Your task to perform on an android device: Open sound settings Image 0: 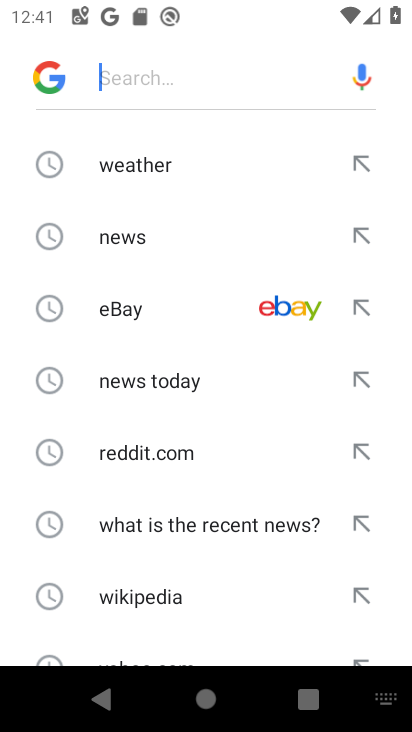
Step 0: press home button
Your task to perform on an android device: Open sound settings Image 1: 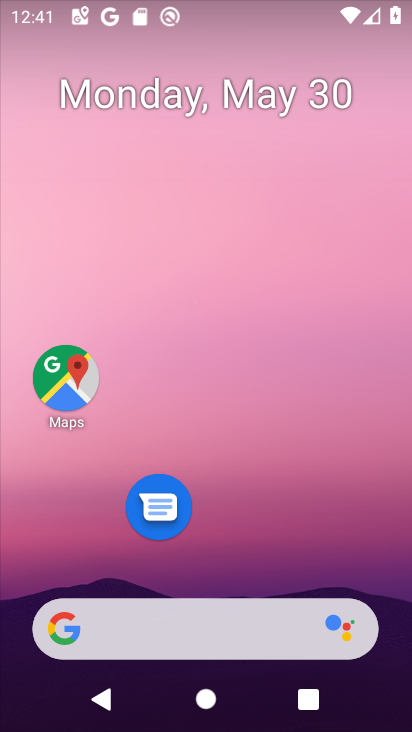
Step 1: drag from (208, 555) to (238, 56)
Your task to perform on an android device: Open sound settings Image 2: 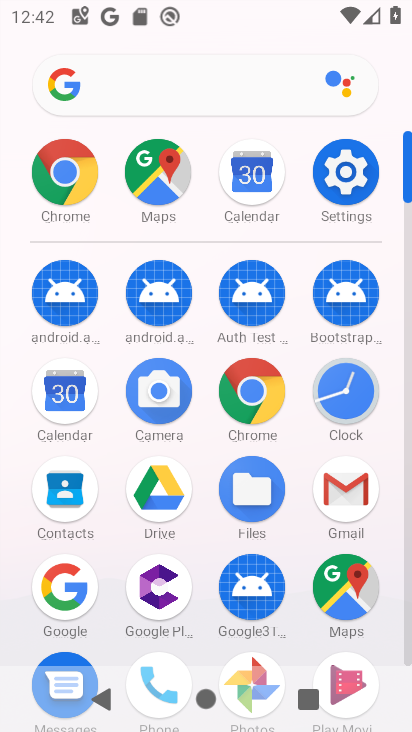
Step 2: click (346, 161)
Your task to perform on an android device: Open sound settings Image 3: 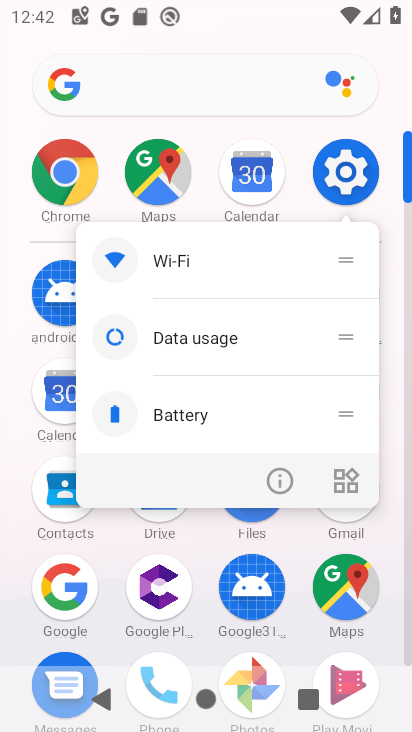
Step 3: click (349, 176)
Your task to perform on an android device: Open sound settings Image 4: 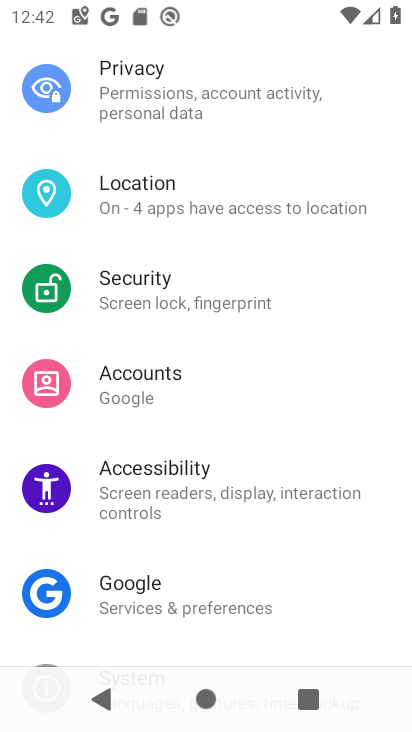
Step 4: drag from (234, 542) to (225, 637)
Your task to perform on an android device: Open sound settings Image 5: 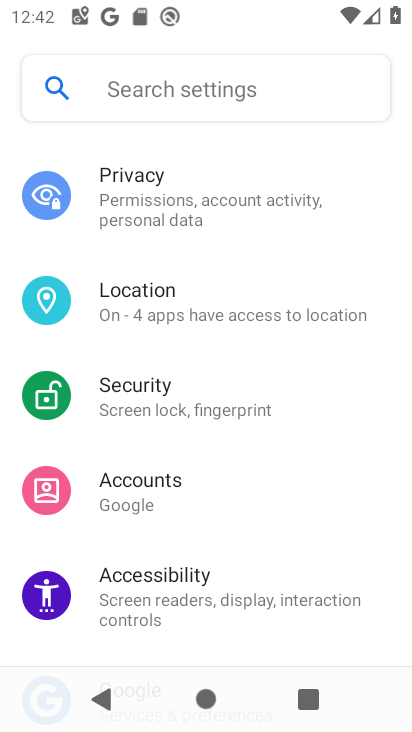
Step 5: drag from (291, 245) to (256, 556)
Your task to perform on an android device: Open sound settings Image 6: 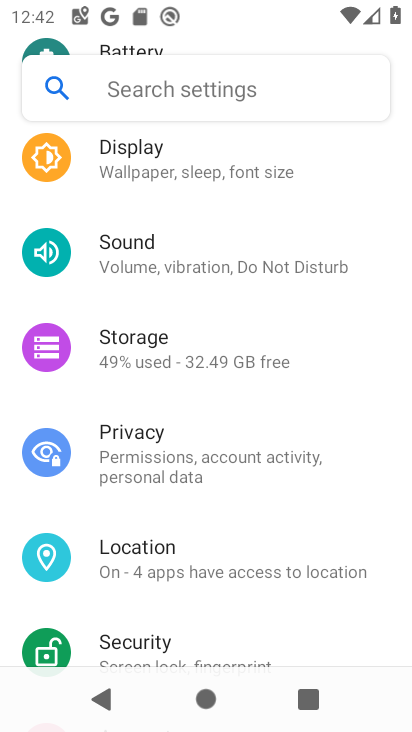
Step 6: click (139, 257)
Your task to perform on an android device: Open sound settings Image 7: 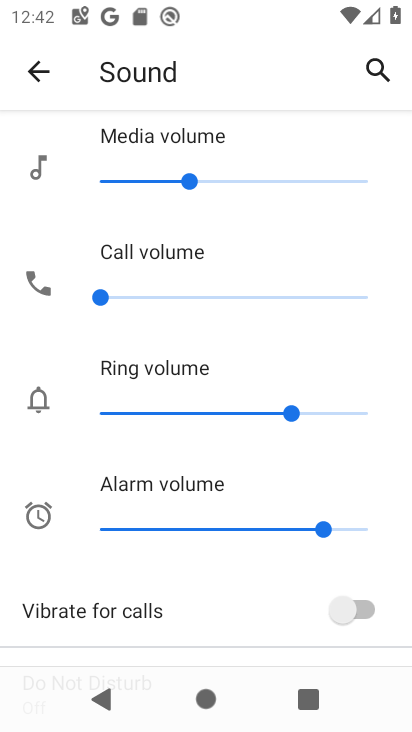
Step 7: task complete